Your task to perform on an android device: open app "Gmail" (install if not already installed) and go to login screen Image 0: 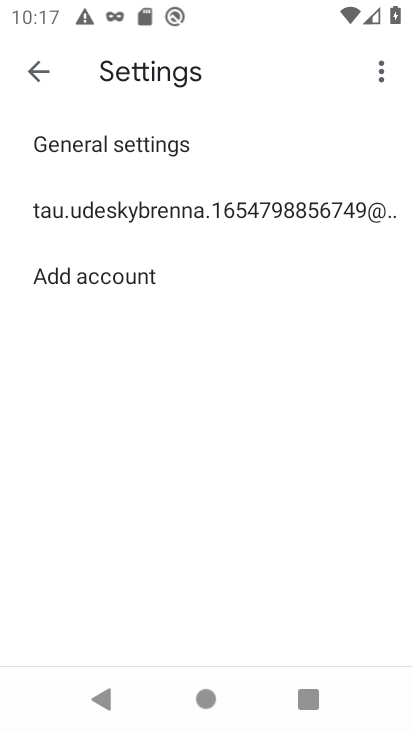
Step 0: press home button
Your task to perform on an android device: open app "Gmail" (install if not already installed) and go to login screen Image 1: 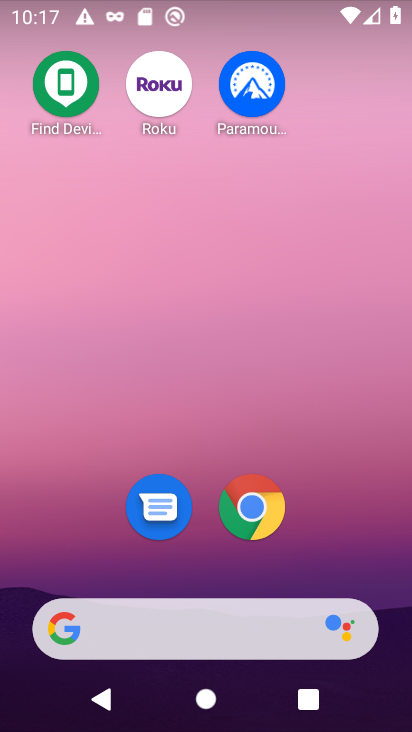
Step 1: drag from (135, 645) to (194, 134)
Your task to perform on an android device: open app "Gmail" (install if not already installed) and go to login screen Image 2: 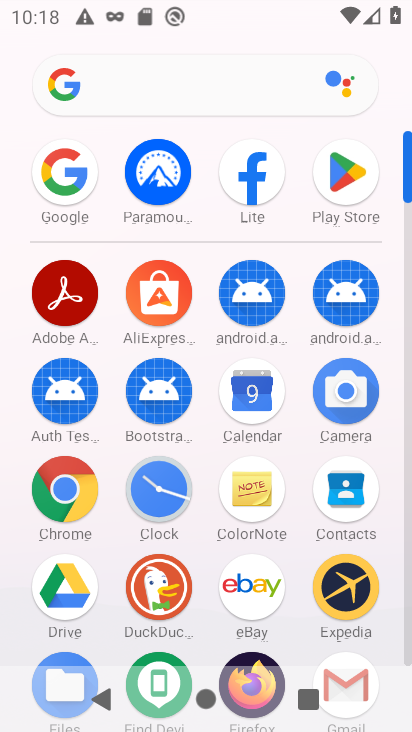
Step 2: click (340, 173)
Your task to perform on an android device: open app "Gmail" (install if not already installed) and go to login screen Image 3: 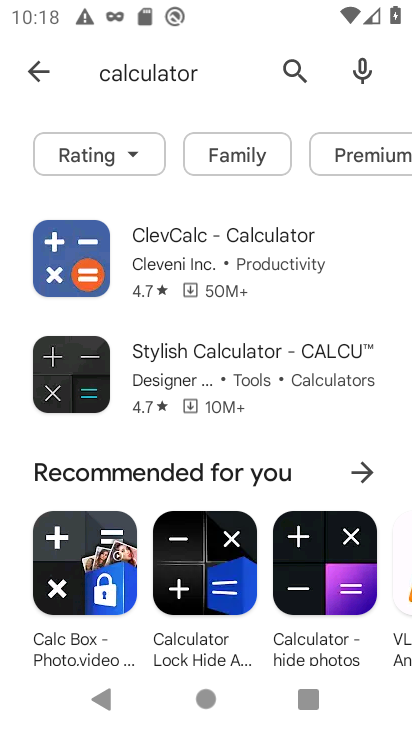
Step 3: click (294, 72)
Your task to perform on an android device: open app "Gmail" (install if not already installed) and go to login screen Image 4: 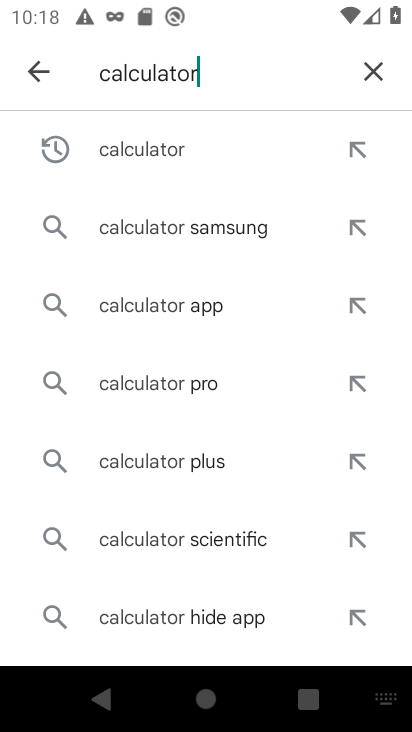
Step 4: click (371, 65)
Your task to perform on an android device: open app "Gmail" (install if not already installed) and go to login screen Image 5: 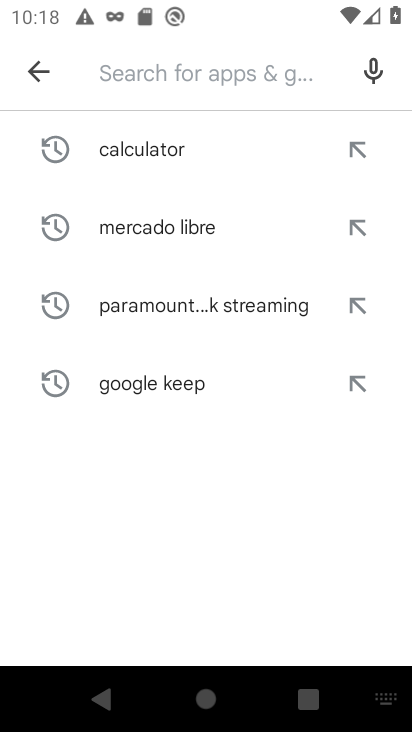
Step 5: type "Gmail"
Your task to perform on an android device: open app "Gmail" (install if not already installed) and go to login screen Image 6: 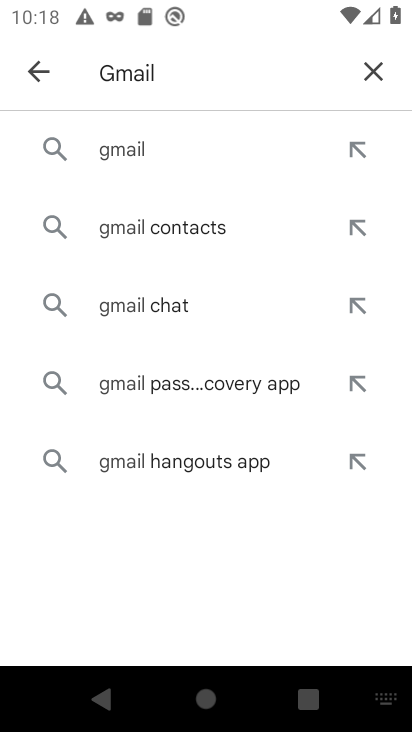
Step 6: click (130, 157)
Your task to perform on an android device: open app "Gmail" (install if not already installed) and go to login screen Image 7: 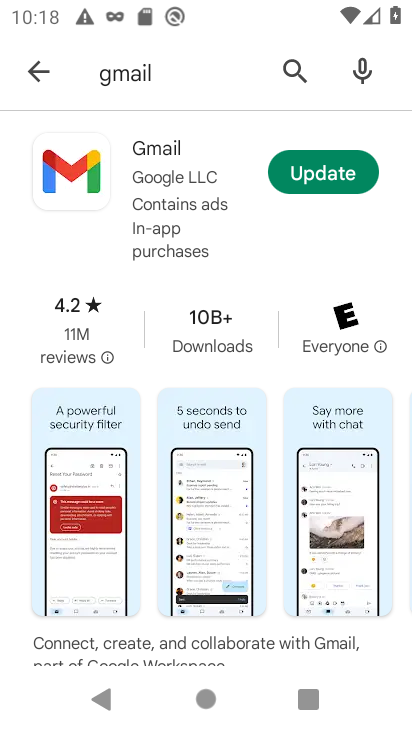
Step 7: click (170, 159)
Your task to perform on an android device: open app "Gmail" (install if not already installed) and go to login screen Image 8: 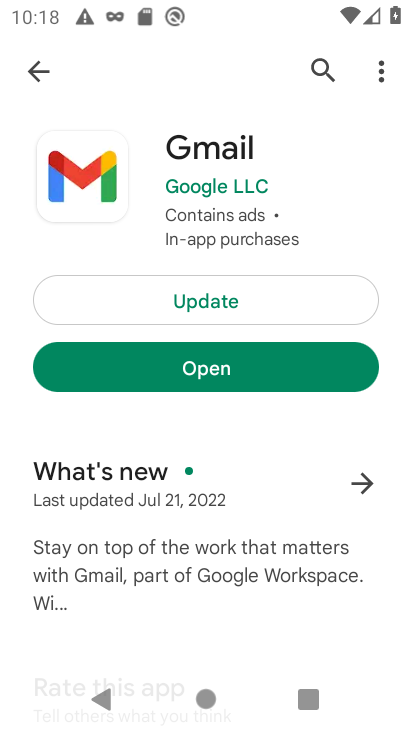
Step 8: click (240, 371)
Your task to perform on an android device: open app "Gmail" (install if not already installed) and go to login screen Image 9: 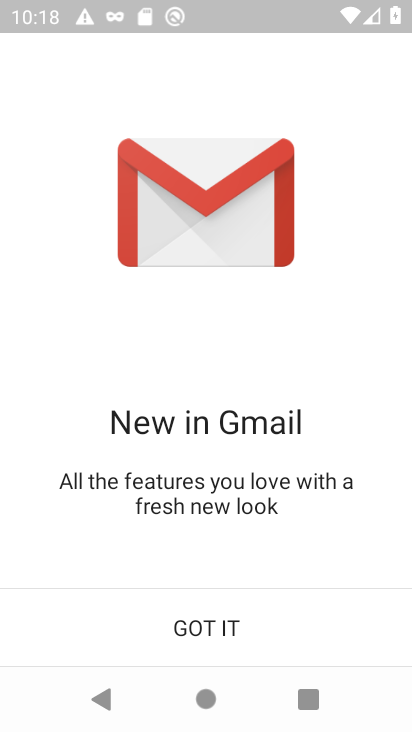
Step 9: click (221, 639)
Your task to perform on an android device: open app "Gmail" (install if not already installed) and go to login screen Image 10: 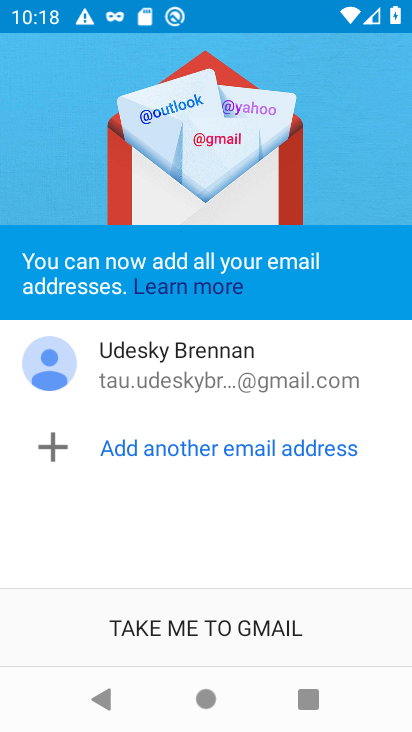
Step 10: task complete